Your task to perform on an android device: change text size in settings app Image 0: 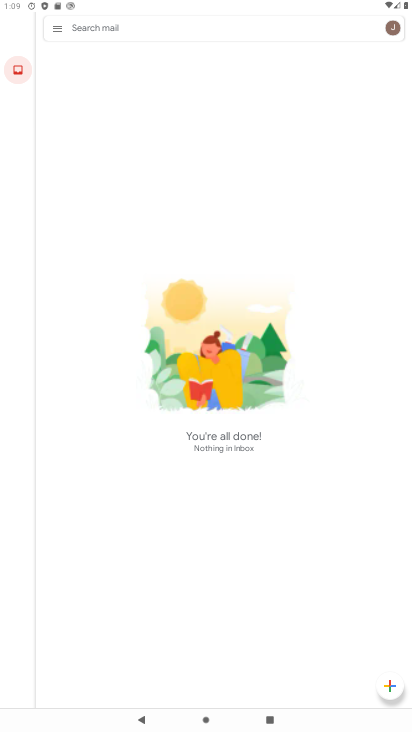
Step 0: press home button
Your task to perform on an android device: change text size in settings app Image 1: 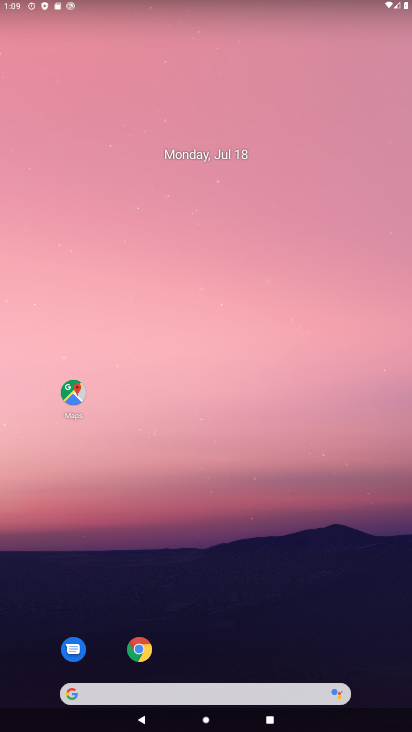
Step 1: drag from (210, 677) to (161, 99)
Your task to perform on an android device: change text size in settings app Image 2: 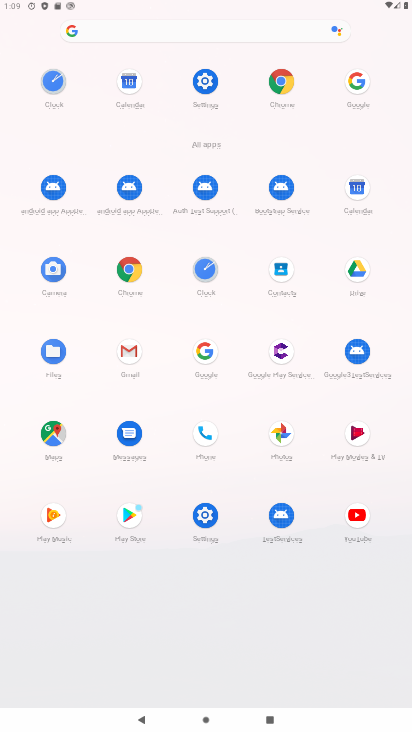
Step 2: click (202, 520)
Your task to perform on an android device: change text size in settings app Image 3: 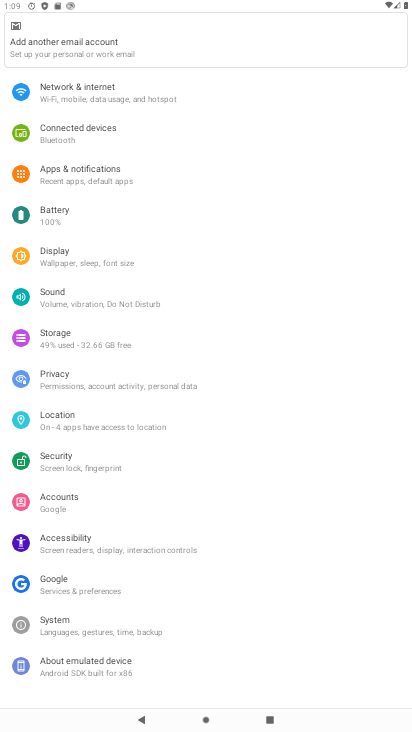
Step 3: click (50, 266)
Your task to perform on an android device: change text size in settings app Image 4: 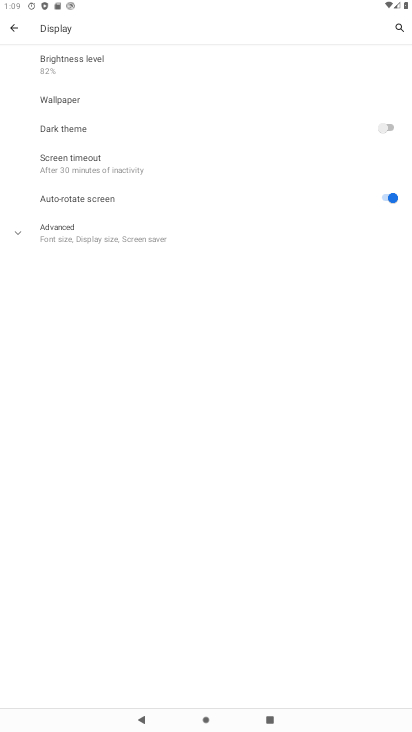
Step 4: click (56, 245)
Your task to perform on an android device: change text size in settings app Image 5: 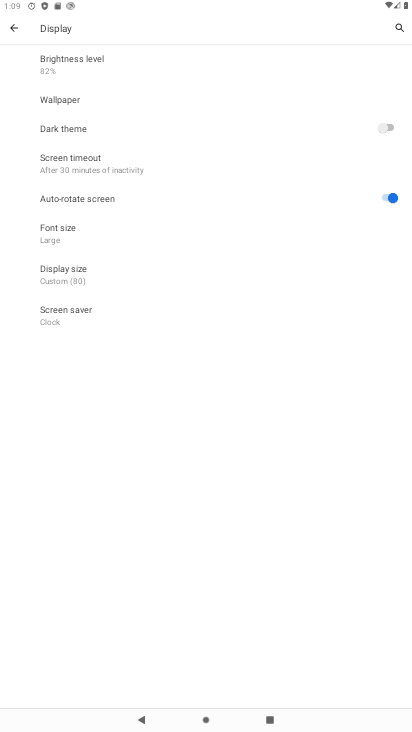
Step 5: click (59, 219)
Your task to perform on an android device: change text size in settings app Image 6: 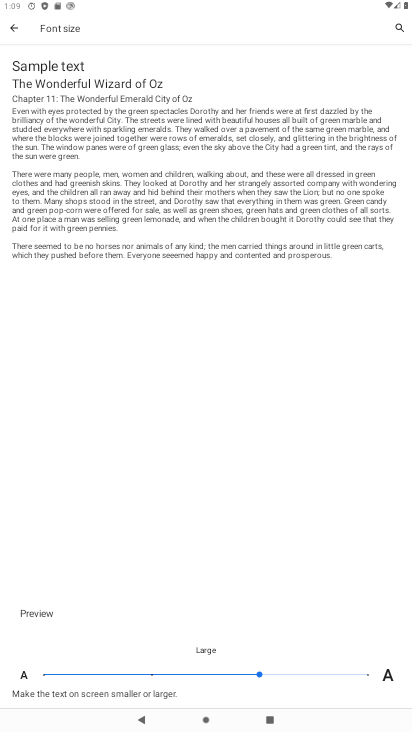
Step 6: click (366, 671)
Your task to perform on an android device: change text size in settings app Image 7: 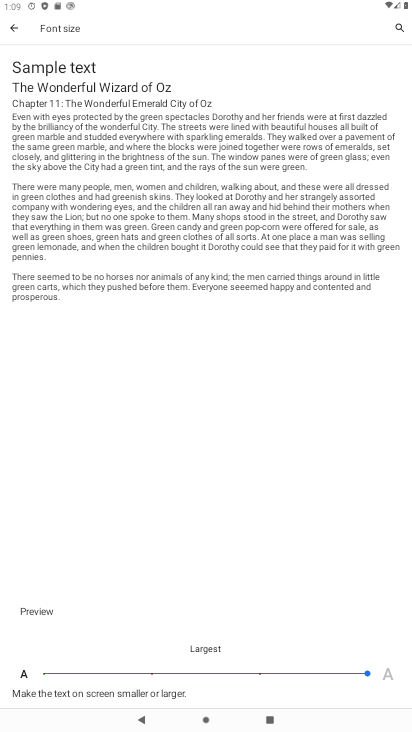
Step 7: task complete